Your task to perform on an android device: Go to privacy settings Image 0: 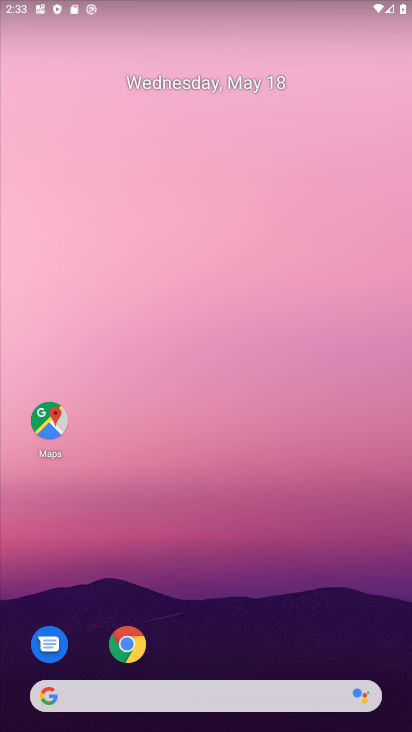
Step 0: drag from (244, 725) to (297, 34)
Your task to perform on an android device: Go to privacy settings Image 1: 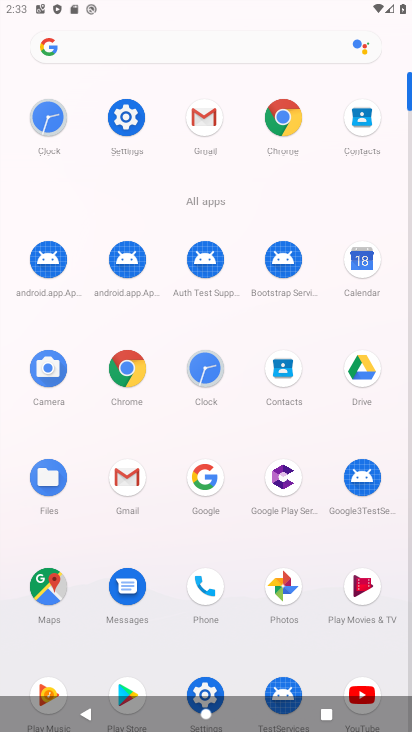
Step 1: click (135, 129)
Your task to perform on an android device: Go to privacy settings Image 2: 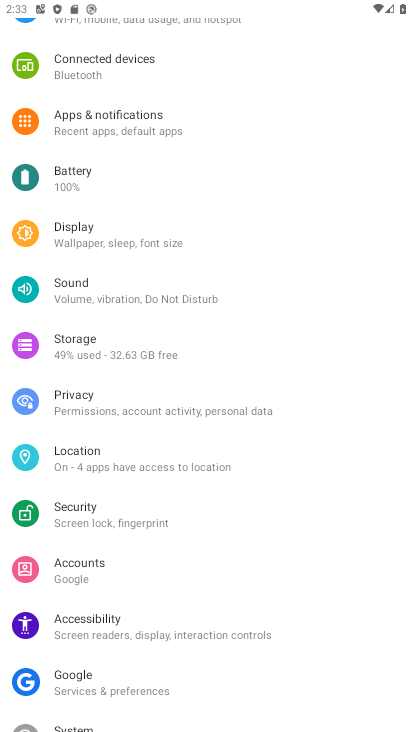
Step 2: click (99, 414)
Your task to perform on an android device: Go to privacy settings Image 3: 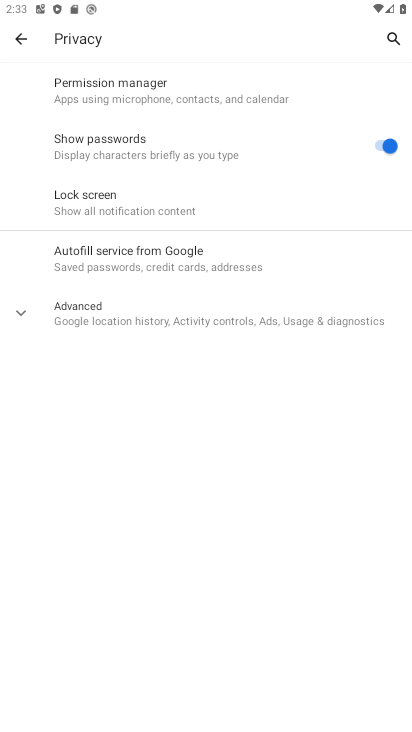
Step 3: task complete